Your task to perform on an android device: Search for vegetarian restaurants on Maps Image 0: 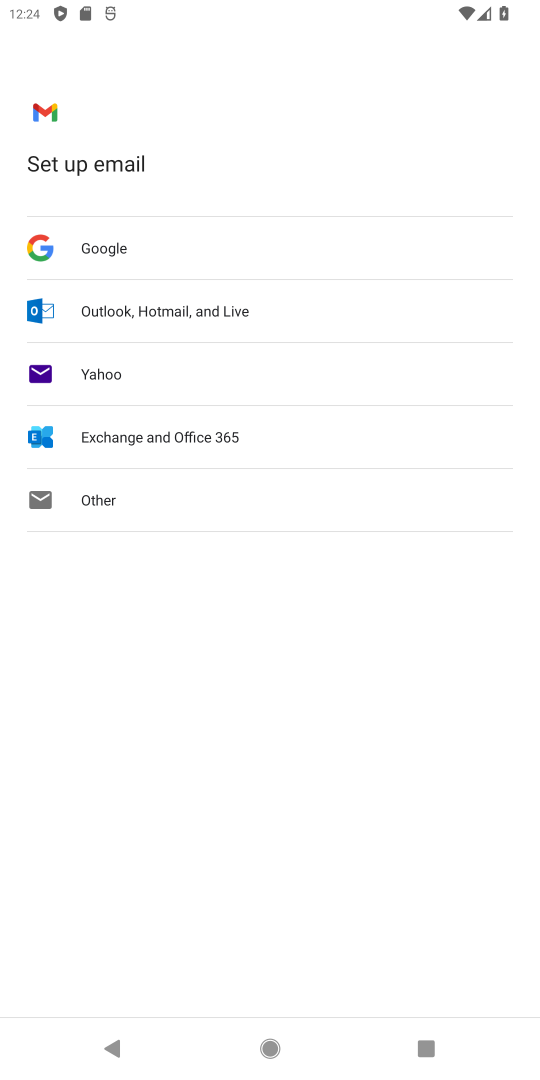
Step 0: click (400, 767)
Your task to perform on an android device: Search for vegetarian restaurants on Maps Image 1: 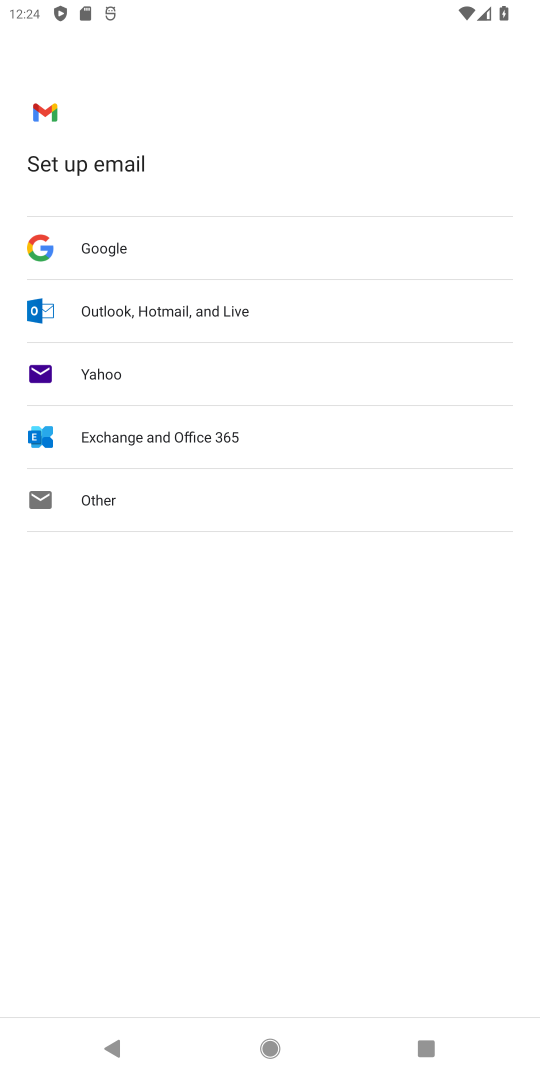
Step 1: drag from (399, 825) to (442, 363)
Your task to perform on an android device: Search for vegetarian restaurants on Maps Image 2: 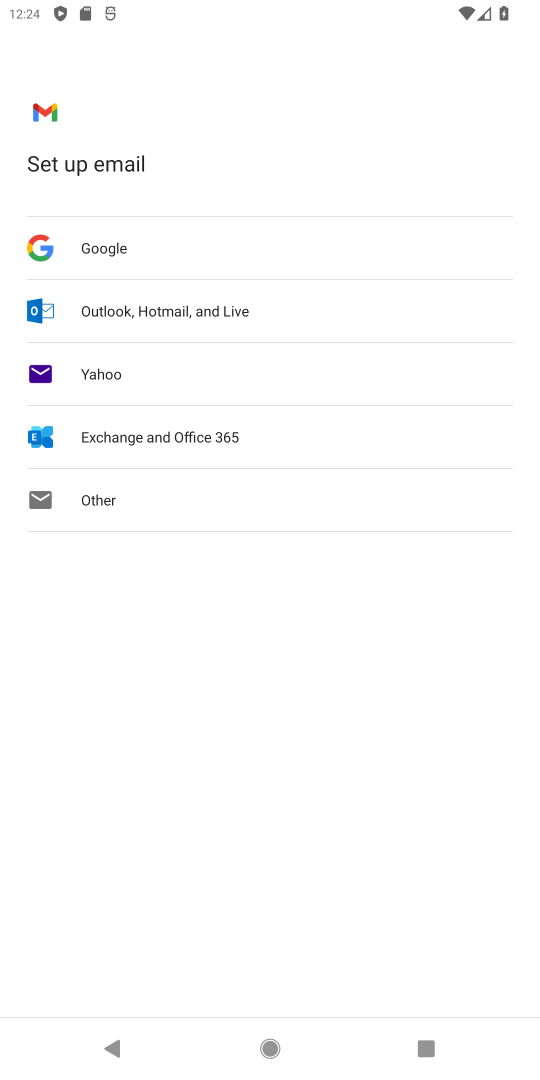
Step 2: drag from (186, 840) to (366, 413)
Your task to perform on an android device: Search for vegetarian restaurants on Maps Image 3: 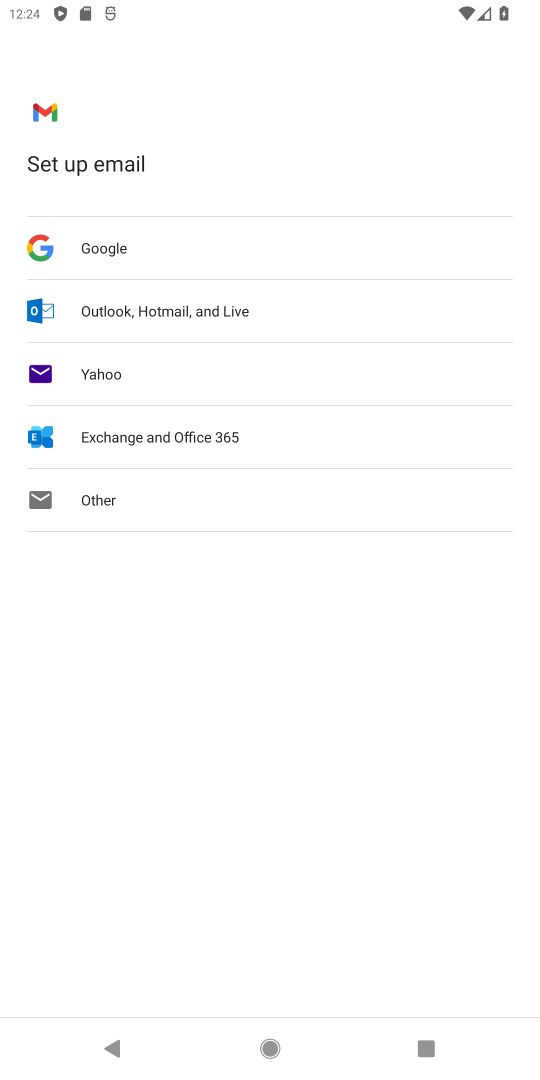
Step 3: drag from (235, 187) to (15, 792)
Your task to perform on an android device: Search for vegetarian restaurants on Maps Image 4: 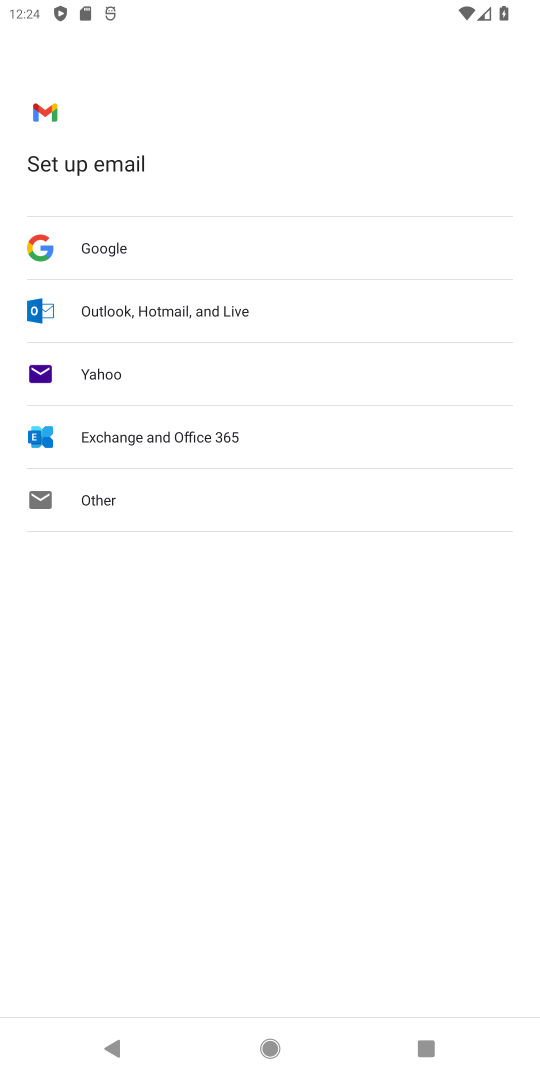
Step 4: drag from (159, 174) to (371, 714)
Your task to perform on an android device: Search for vegetarian restaurants on Maps Image 5: 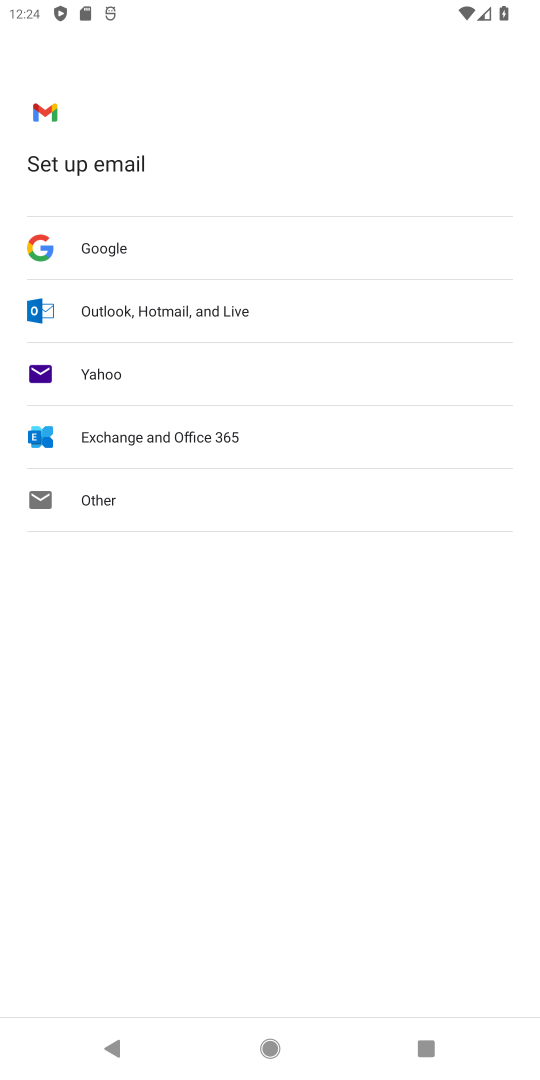
Step 5: press home button
Your task to perform on an android device: Search for vegetarian restaurants on Maps Image 6: 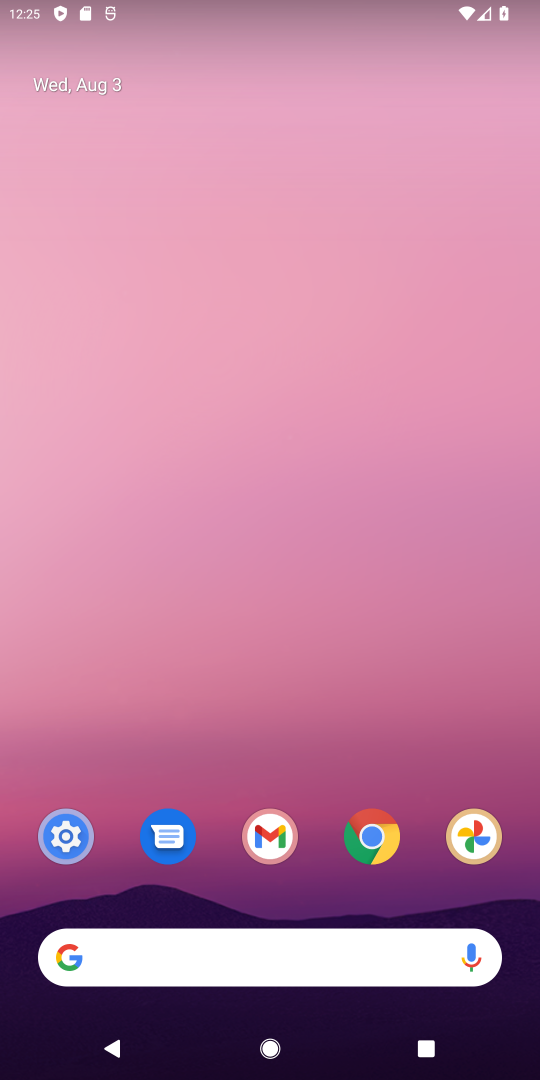
Step 6: drag from (221, 857) to (242, 224)
Your task to perform on an android device: Search for vegetarian restaurants on Maps Image 7: 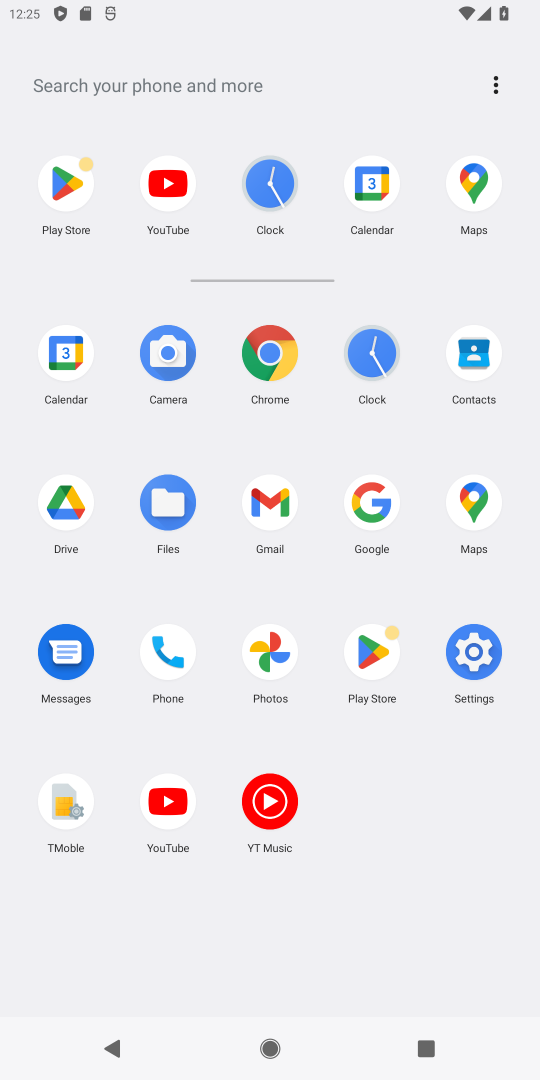
Step 7: click (485, 492)
Your task to perform on an android device: Search for vegetarian restaurants on Maps Image 8: 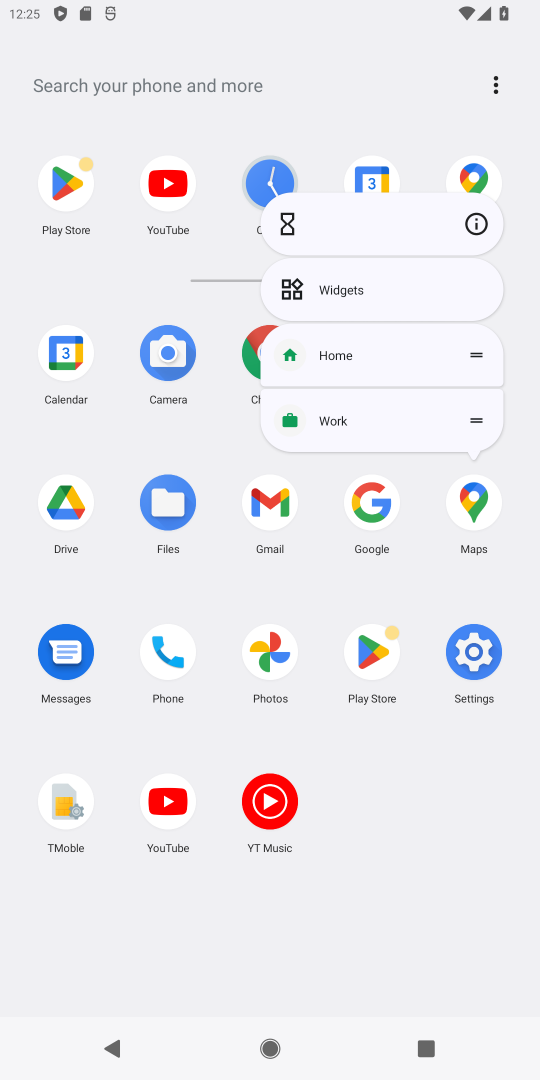
Step 8: click (475, 225)
Your task to perform on an android device: Search for vegetarian restaurants on Maps Image 9: 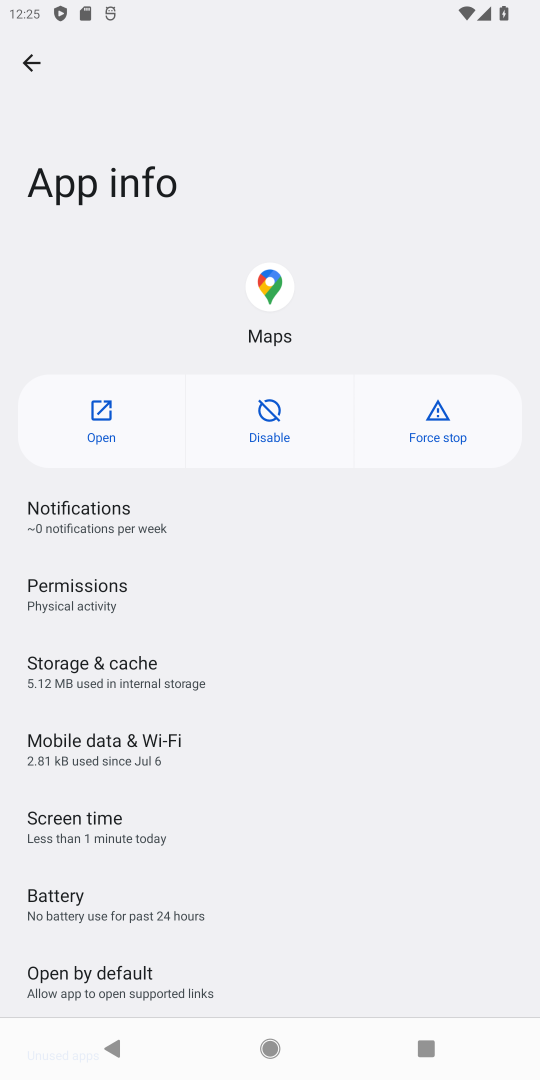
Step 9: click (90, 418)
Your task to perform on an android device: Search for vegetarian restaurants on Maps Image 10: 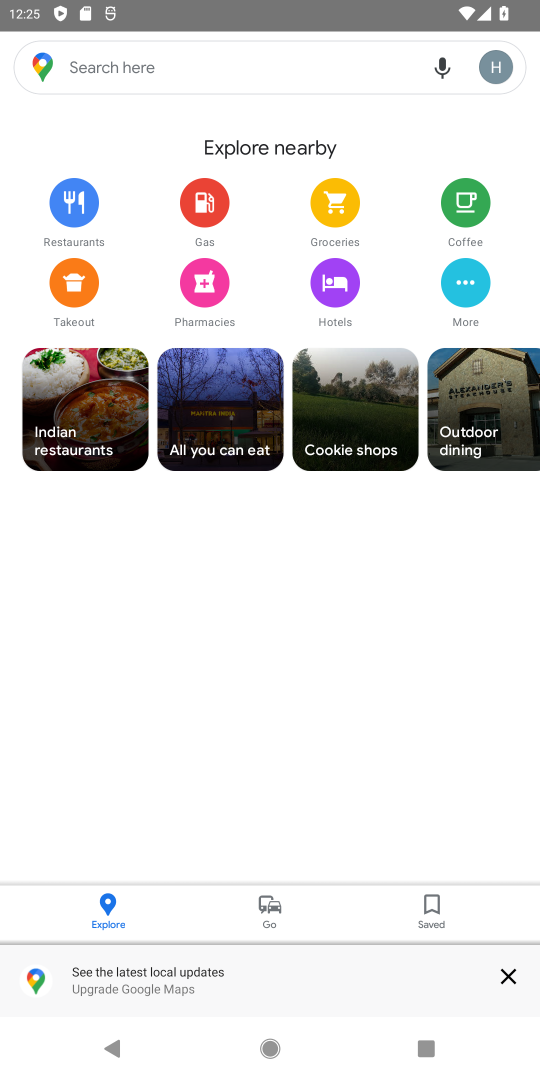
Step 10: drag from (396, 811) to (379, 407)
Your task to perform on an android device: Search for vegetarian restaurants on Maps Image 11: 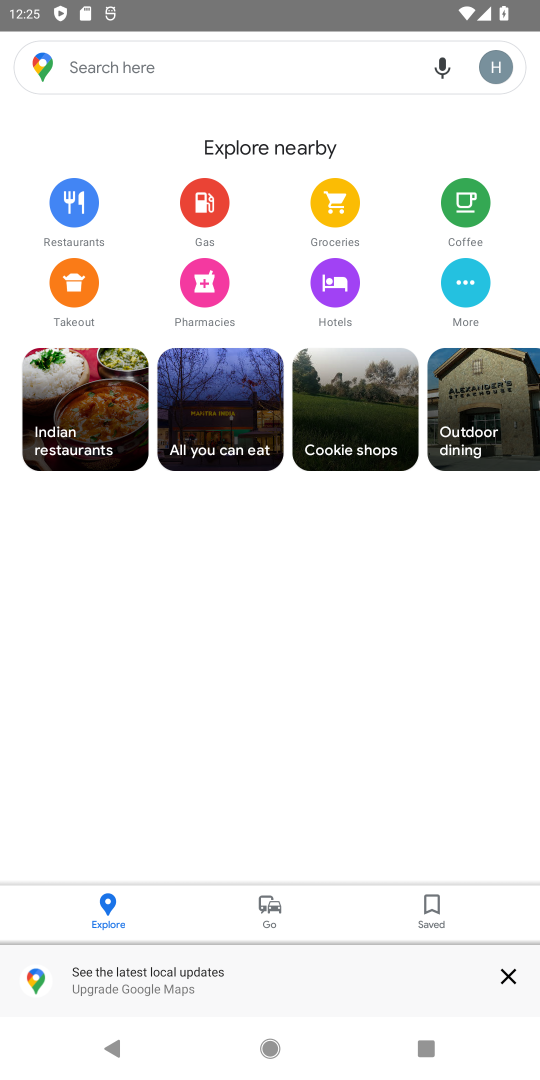
Step 11: drag from (397, 533) to (348, 686)
Your task to perform on an android device: Search for vegetarian restaurants on Maps Image 12: 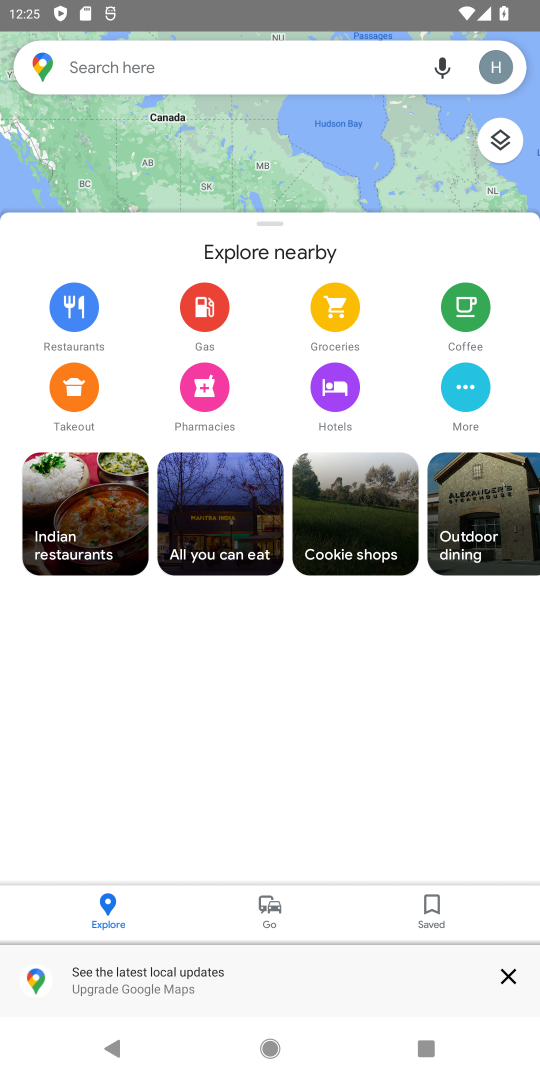
Step 12: click (226, 79)
Your task to perform on an android device: Search for vegetarian restaurants on Maps Image 13: 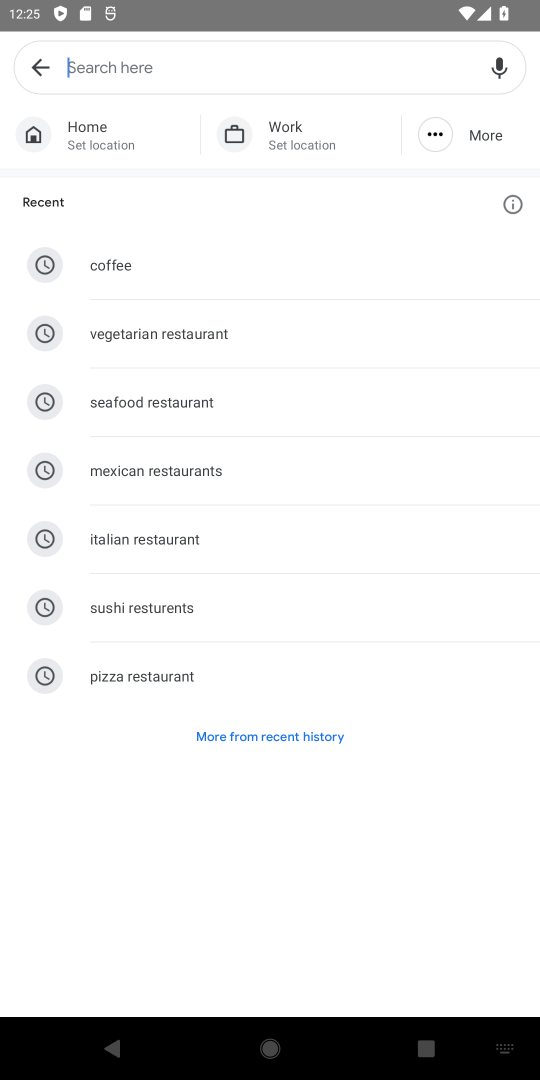
Step 13: type "vegetarian restaurants"
Your task to perform on an android device: Search for vegetarian restaurants on Maps Image 14: 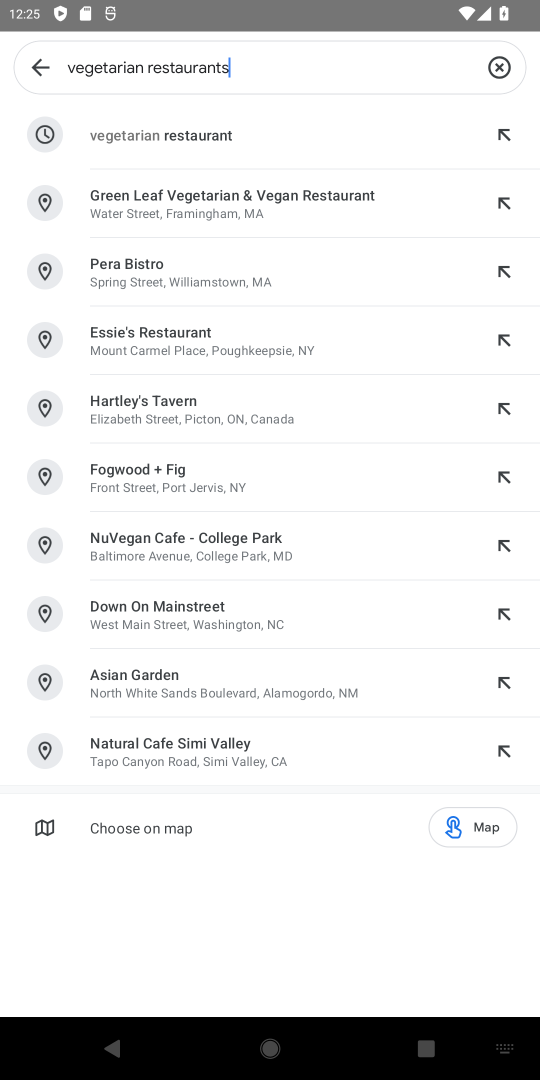
Step 14: click (142, 141)
Your task to perform on an android device: Search for vegetarian restaurants on Maps Image 15: 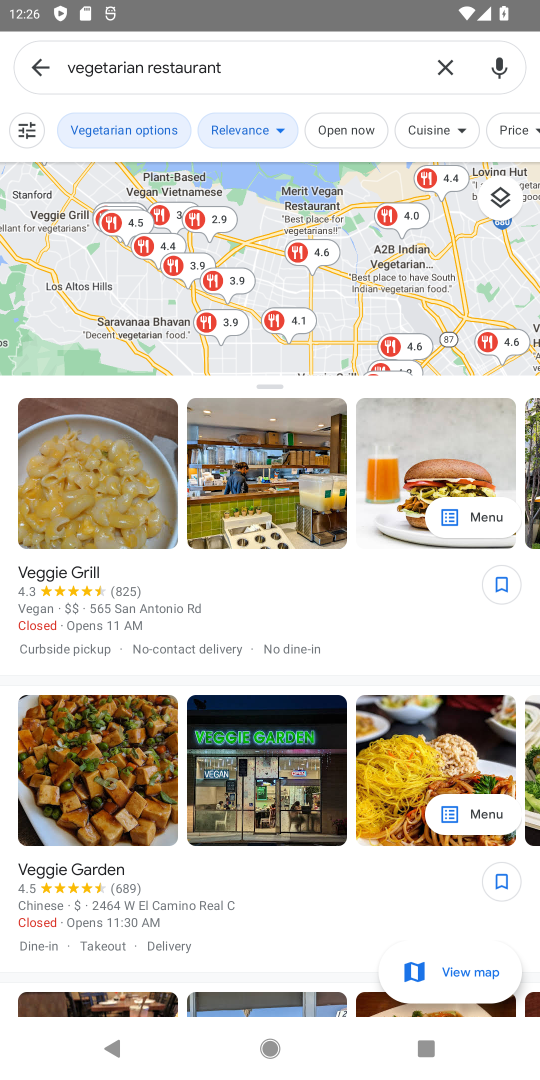
Step 15: task complete